Your task to perform on an android device: Show me popular games on the Play Store Image 0: 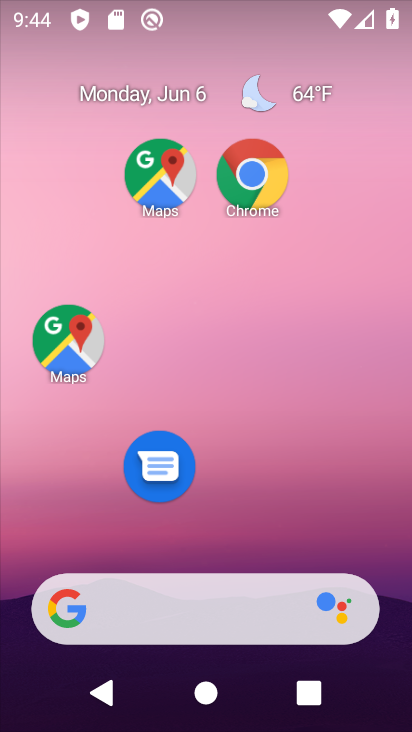
Step 0: press back button
Your task to perform on an android device: Show me popular games on the Play Store Image 1: 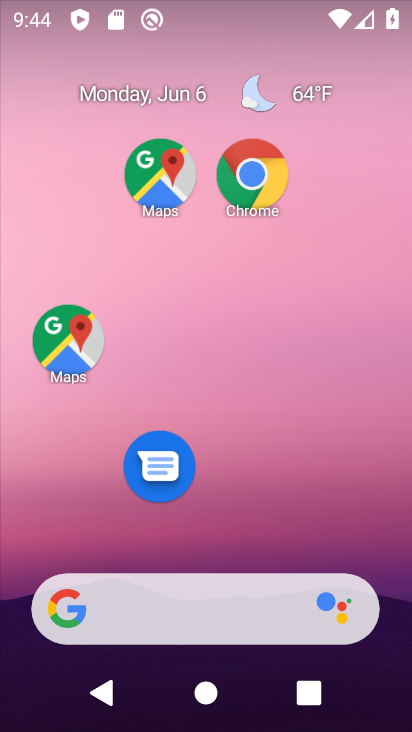
Step 1: drag from (262, 678) to (170, 122)
Your task to perform on an android device: Show me popular games on the Play Store Image 2: 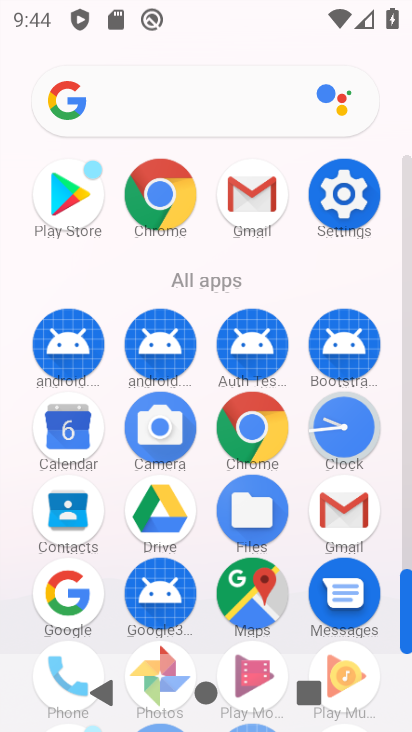
Step 2: drag from (188, 490) to (166, 211)
Your task to perform on an android device: Show me popular games on the Play Store Image 3: 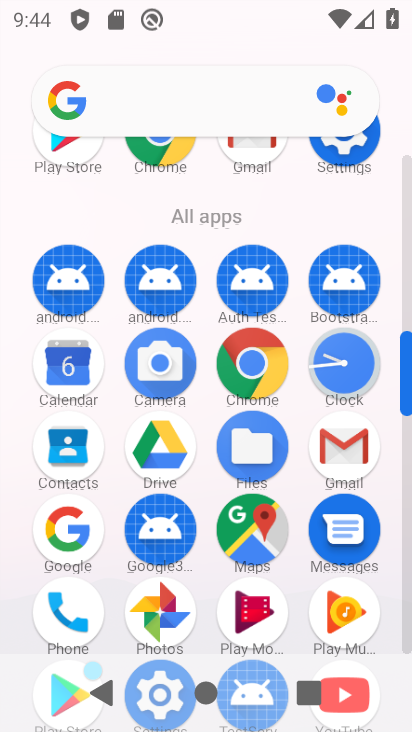
Step 3: drag from (179, 501) to (177, 189)
Your task to perform on an android device: Show me popular games on the Play Store Image 4: 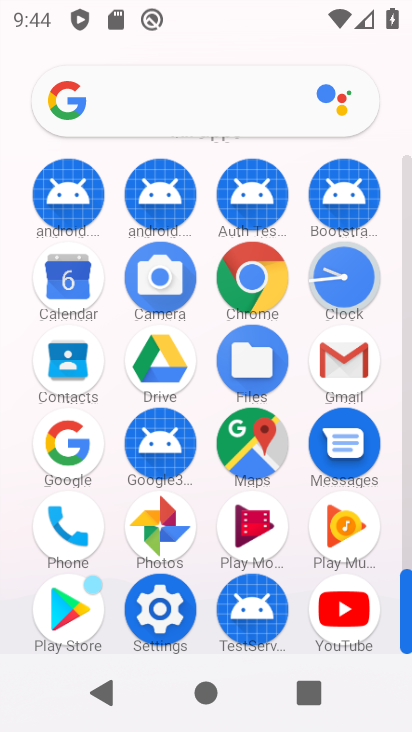
Step 4: click (63, 621)
Your task to perform on an android device: Show me popular games on the Play Store Image 5: 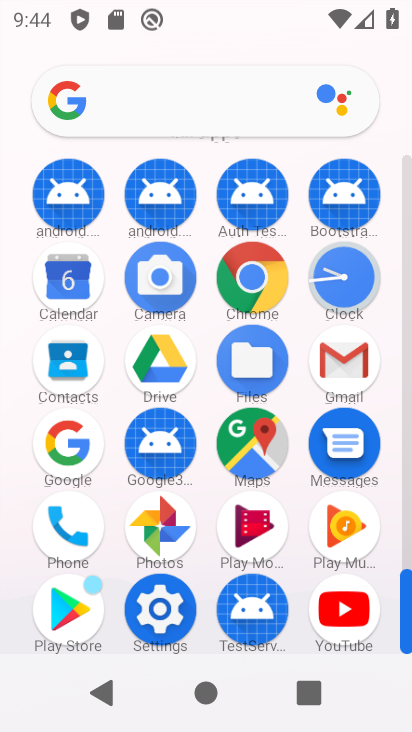
Step 5: click (63, 621)
Your task to perform on an android device: Show me popular games on the Play Store Image 6: 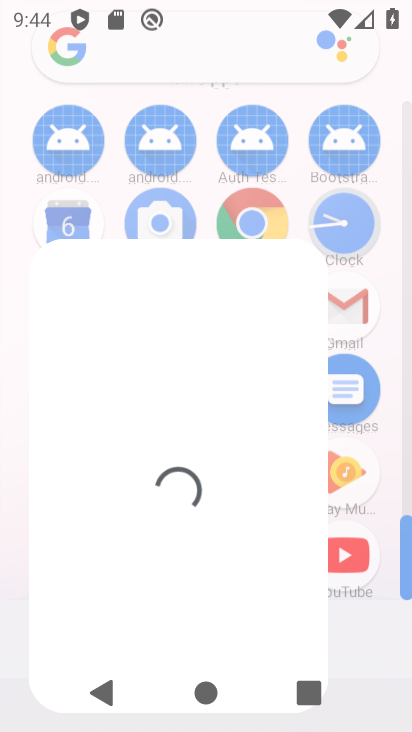
Step 6: click (64, 616)
Your task to perform on an android device: Show me popular games on the Play Store Image 7: 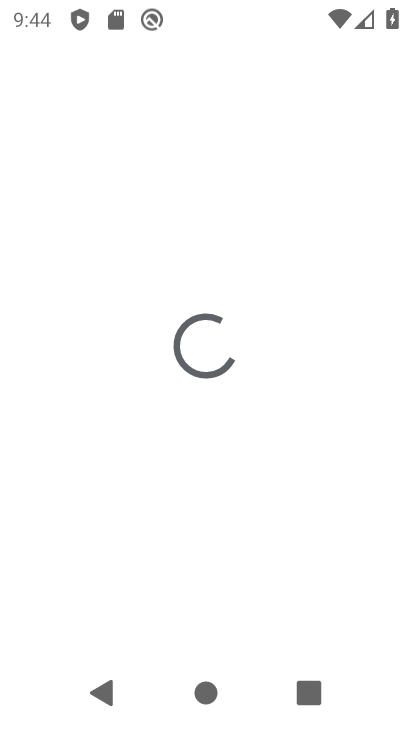
Step 7: click (65, 613)
Your task to perform on an android device: Show me popular games on the Play Store Image 8: 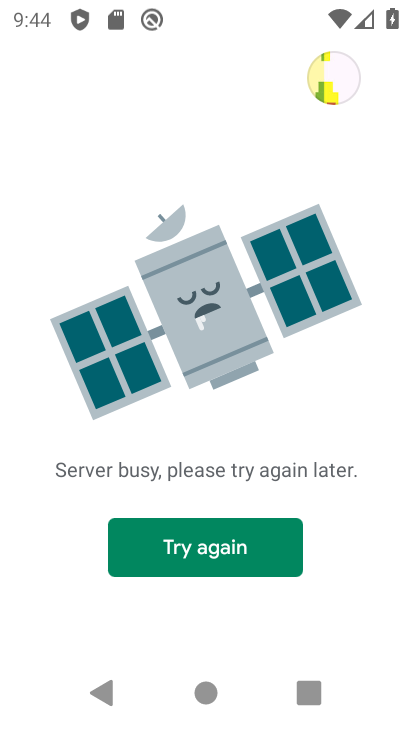
Step 8: task complete